Your task to perform on an android device: Go to Yahoo.com Image 0: 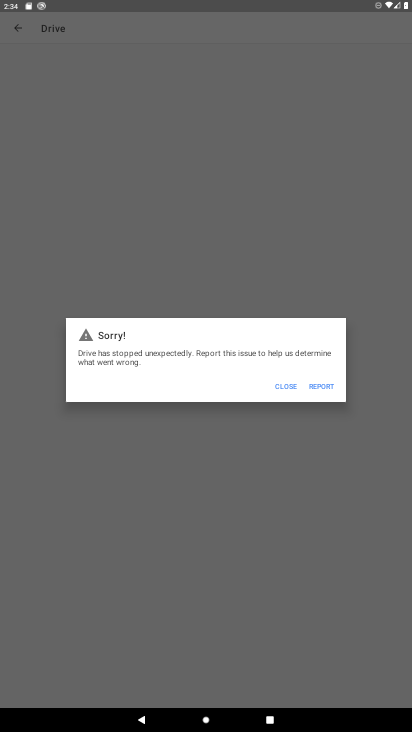
Step 0: press home button
Your task to perform on an android device: Go to Yahoo.com Image 1: 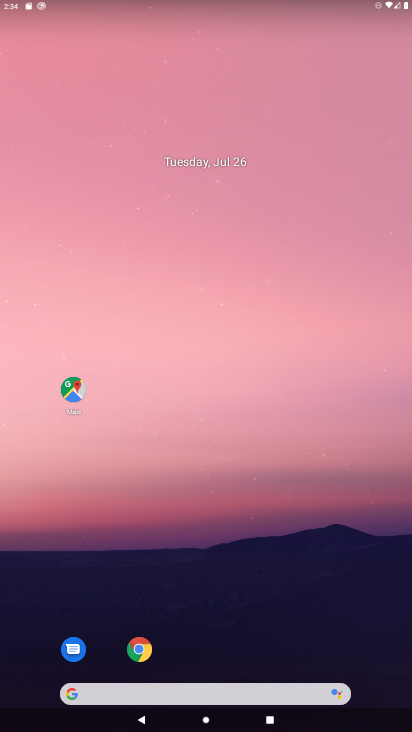
Step 1: click (137, 656)
Your task to perform on an android device: Go to Yahoo.com Image 2: 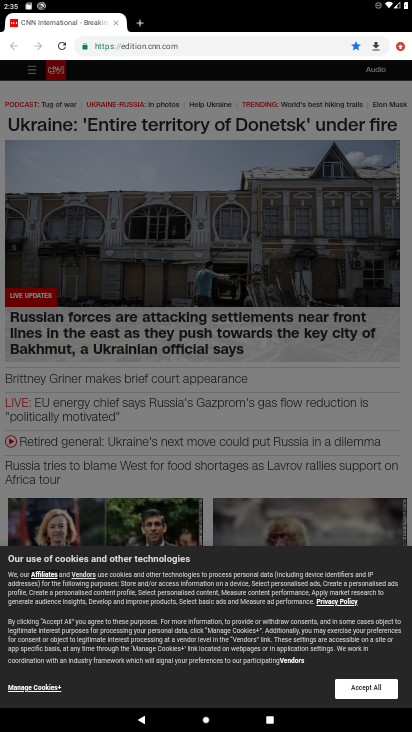
Step 2: click (142, 23)
Your task to perform on an android device: Go to Yahoo.com Image 3: 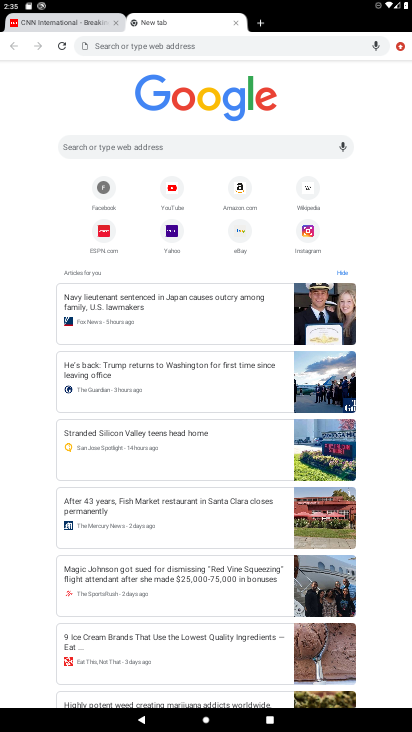
Step 3: click (161, 227)
Your task to perform on an android device: Go to Yahoo.com Image 4: 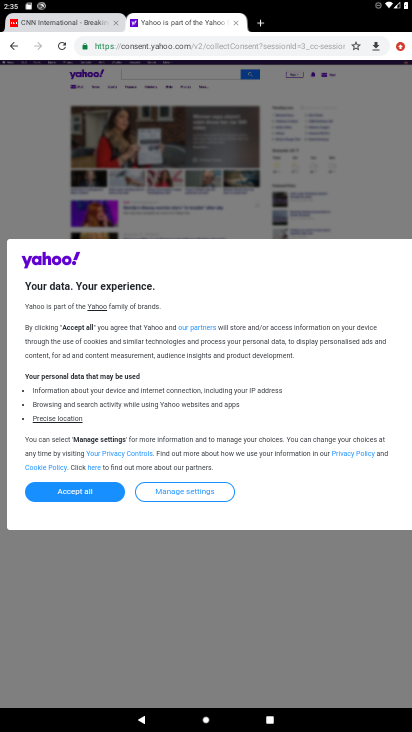
Step 4: task complete